Your task to perform on an android device: check out phone information Image 0: 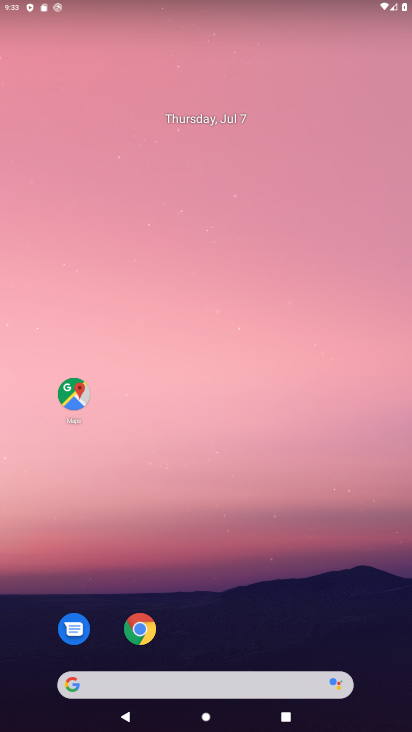
Step 0: drag from (249, 631) to (254, 349)
Your task to perform on an android device: check out phone information Image 1: 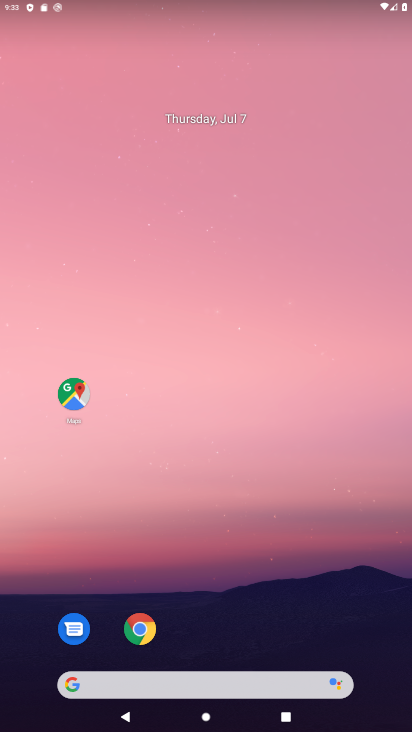
Step 1: drag from (279, 629) to (279, 326)
Your task to perform on an android device: check out phone information Image 2: 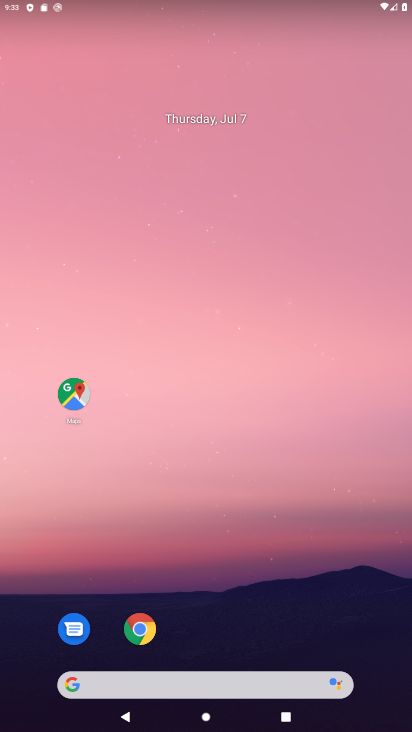
Step 2: click (363, 667)
Your task to perform on an android device: check out phone information Image 3: 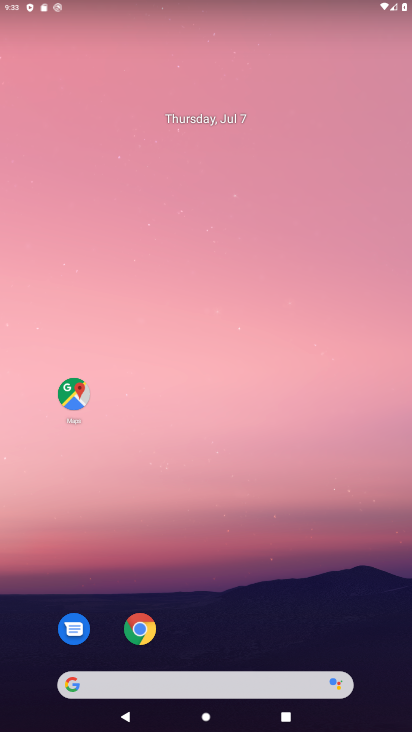
Step 3: drag from (363, 667) to (318, 25)
Your task to perform on an android device: check out phone information Image 4: 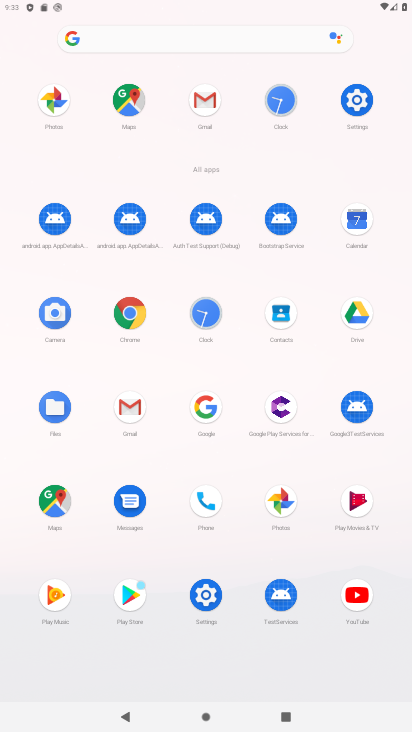
Step 4: click (349, 105)
Your task to perform on an android device: check out phone information Image 5: 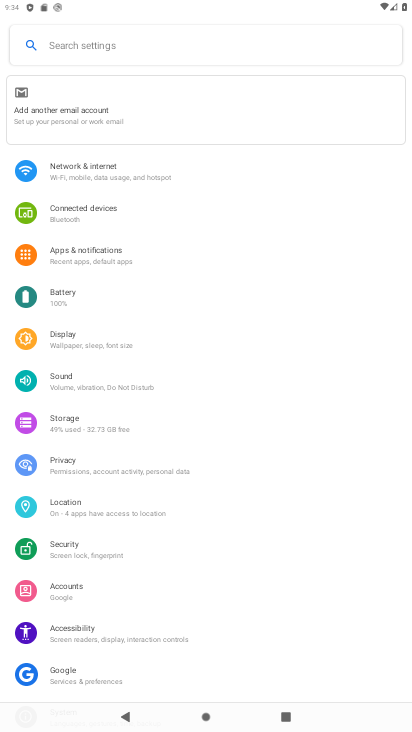
Step 5: drag from (205, 618) to (190, 509)
Your task to perform on an android device: check out phone information Image 6: 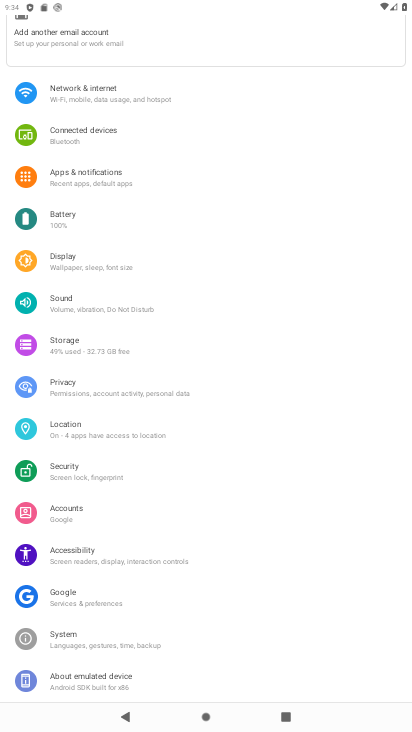
Step 6: click (105, 644)
Your task to perform on an android device: check out phone information Image 7: 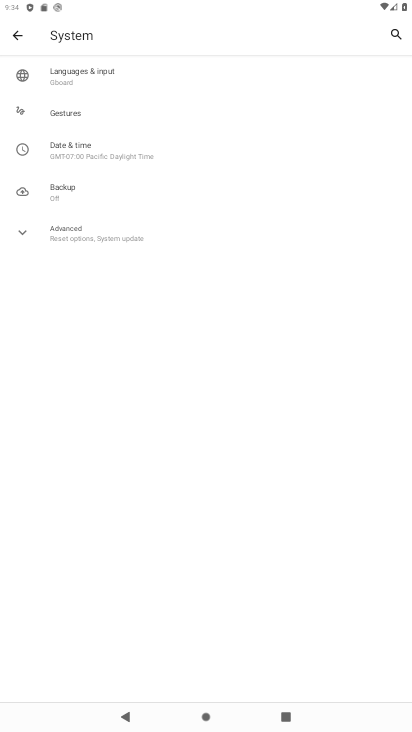
Step 7: task complete